Your task to perform on an android device: Go to Google Image 0: 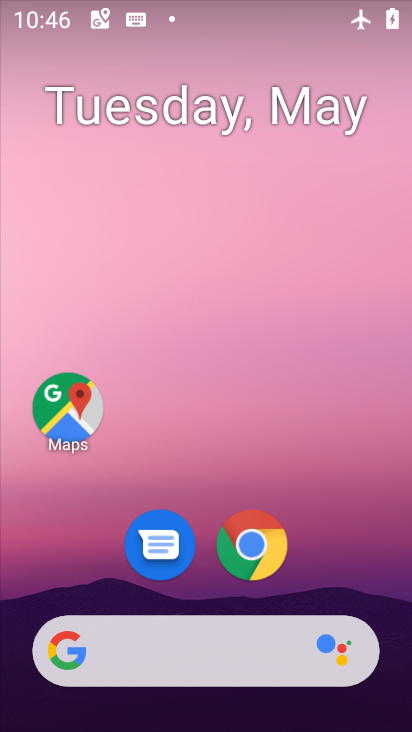
Step 0: drag from (234, 607) to (177, 72)
Your task to perform on an android device: Go to Google Image 1: 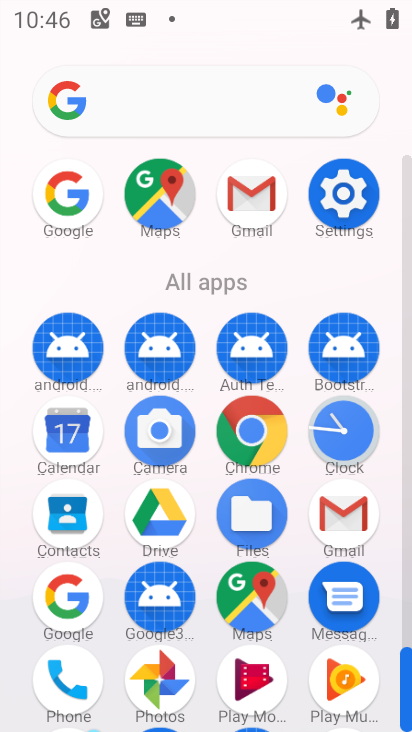
Step 1: click (78, 602)
Your task to perform on an android device: Go to Google Image 2: 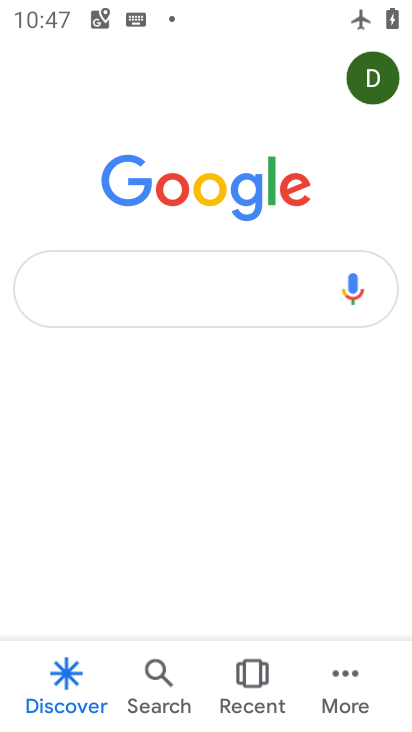
Step 2: task complete